Your task to perform on an android device: toggle pop-ups in chrome Image 0: 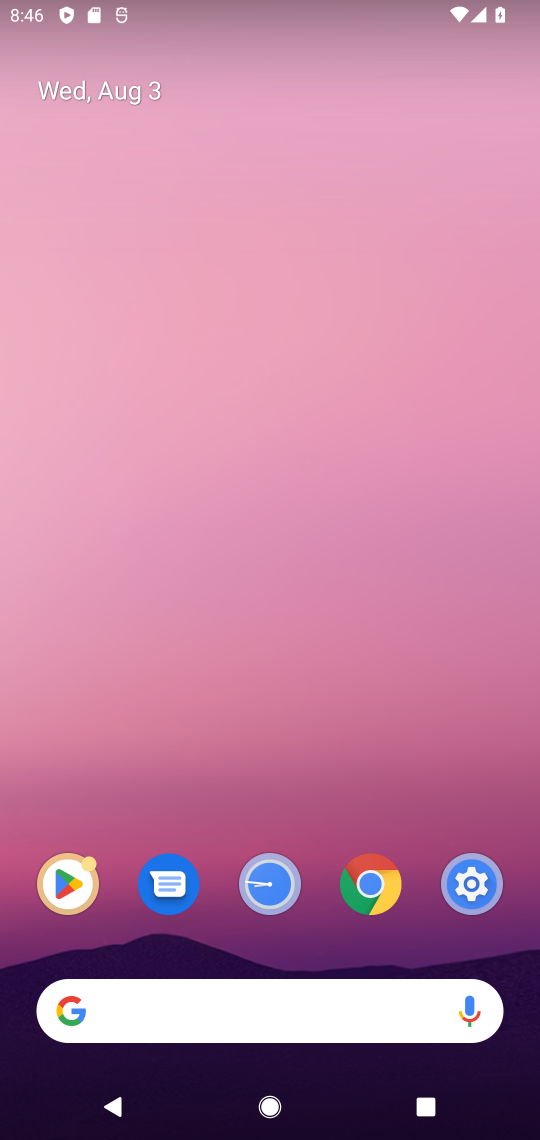
Step 0: click (312, 263)
Your task to perform on an android device: toggle pop-ups in chrome Image 1: 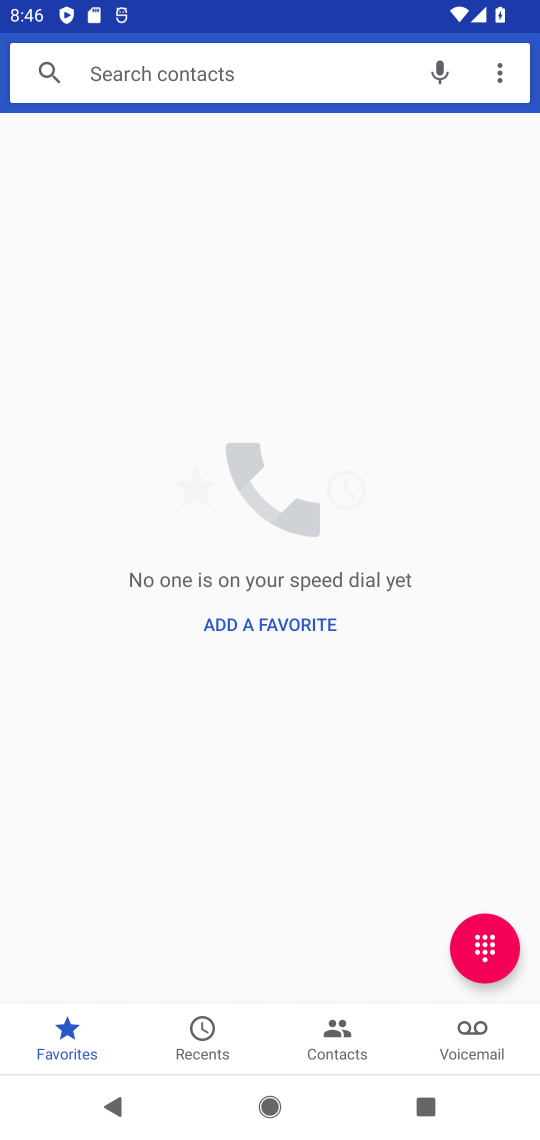
Step 1: drag from (218, 826) to (272, 489)
Your task to perform on an android device: toggle pop-ups in chrome Image 2: 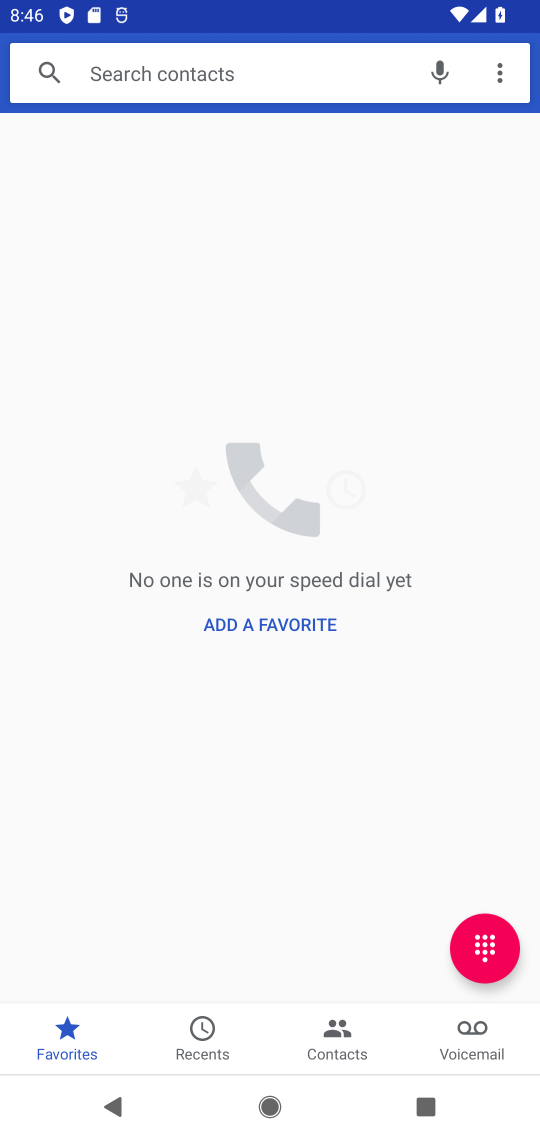
Step 2: press home button
Your task to perform on an android device: toggle pop-ups in chrome Image 3: 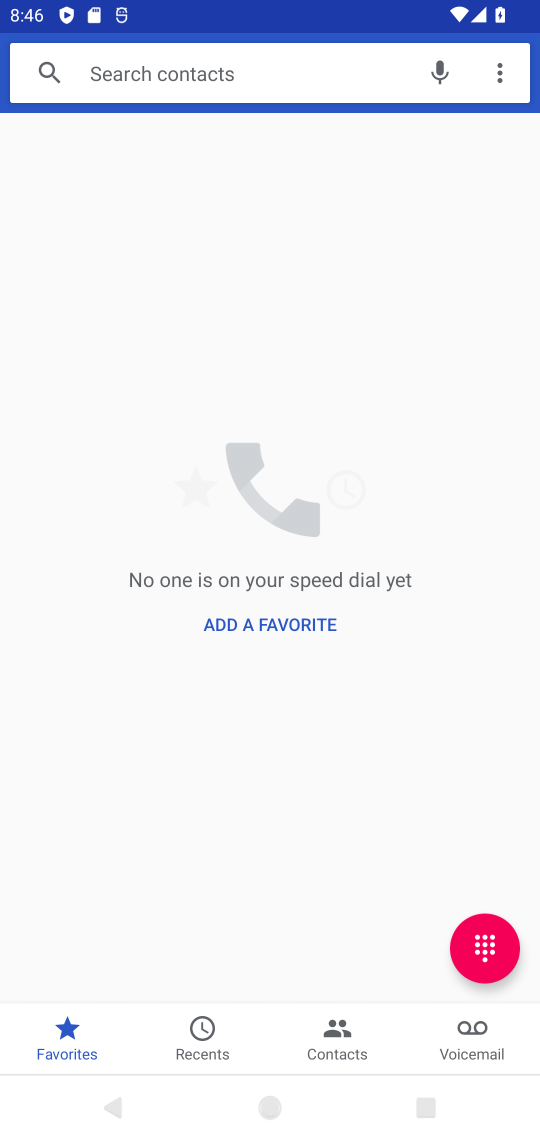
Step 3: drag from (115, 928) to (179, 519)
Your task to perform on an android device: toggle pop-ups in chrome Image 4: 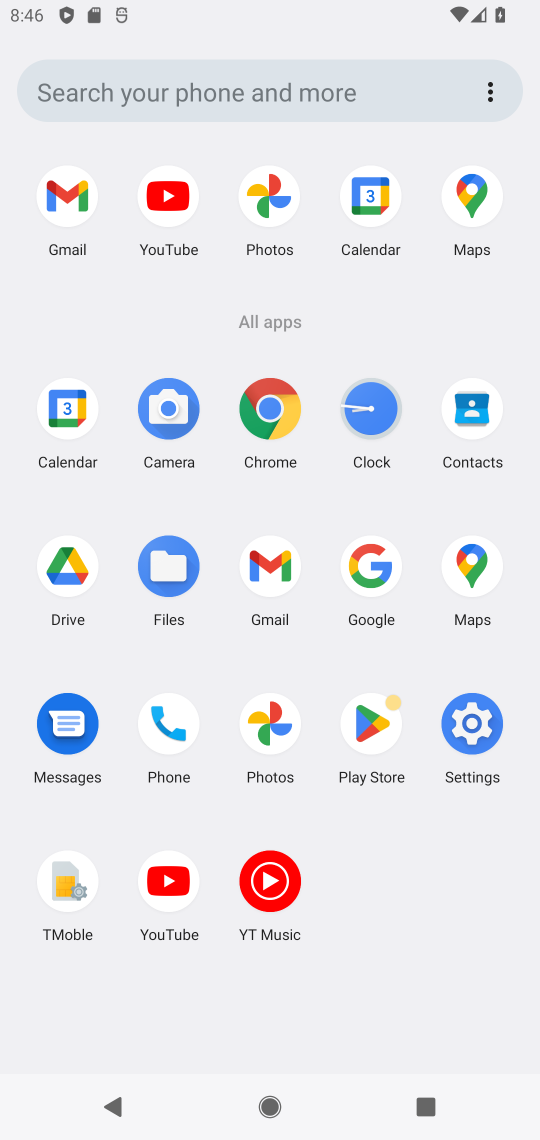
Step 4: click (268, 410)
Your task to perform on an android device: toggle pop-ups in chrome Image 5: 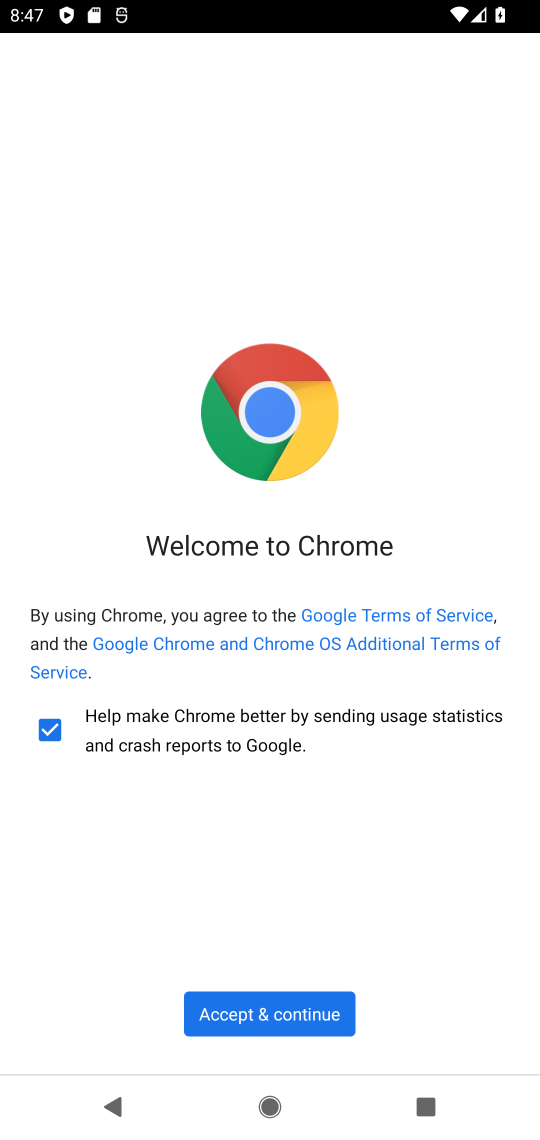
Step 5: drag from (343, 852) to (354, 278)
Your task to perform on an android device: toggle pop-ups in chrome Image 6: 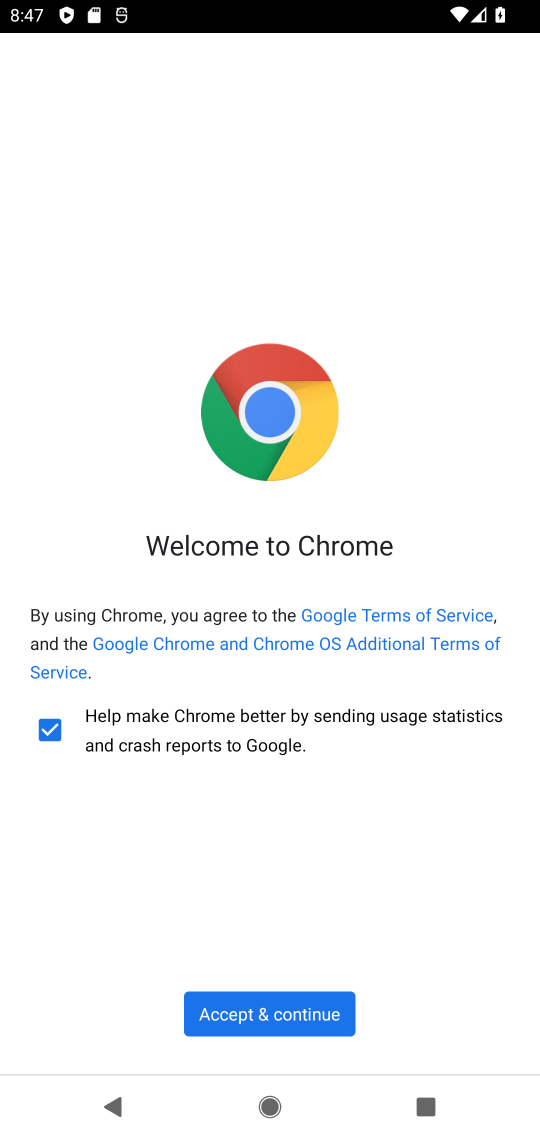
Step 6: drag from (184, 785) to (247, 328)
Your task to perform on an android device: toggle pop-ups in chrome Image 7: 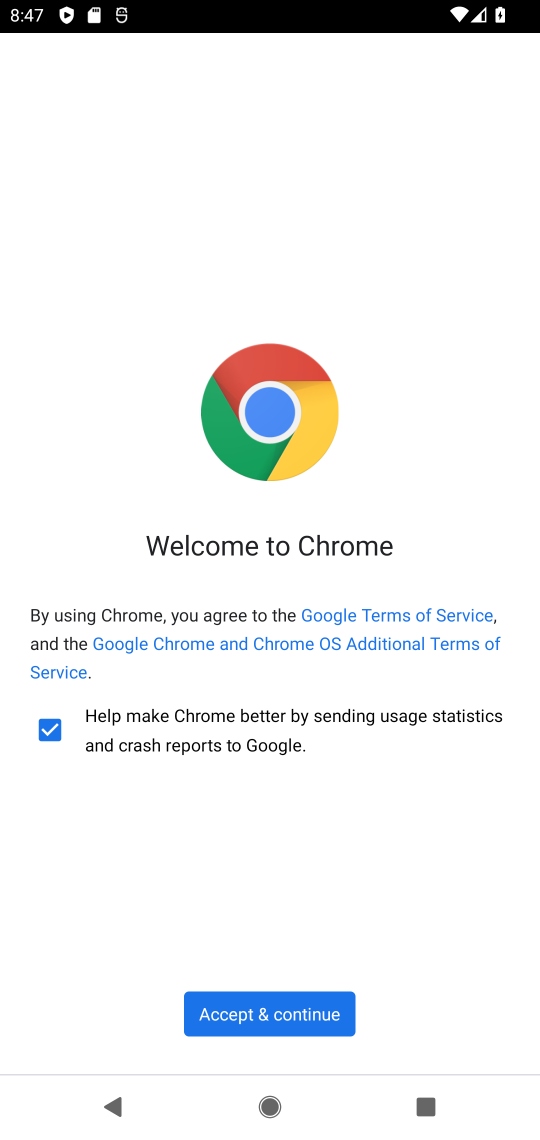
Step 7: drag from (269, 782) to (301, 418)
Your task to perform on an android device: toggle pop-ups in chrome Image 8: 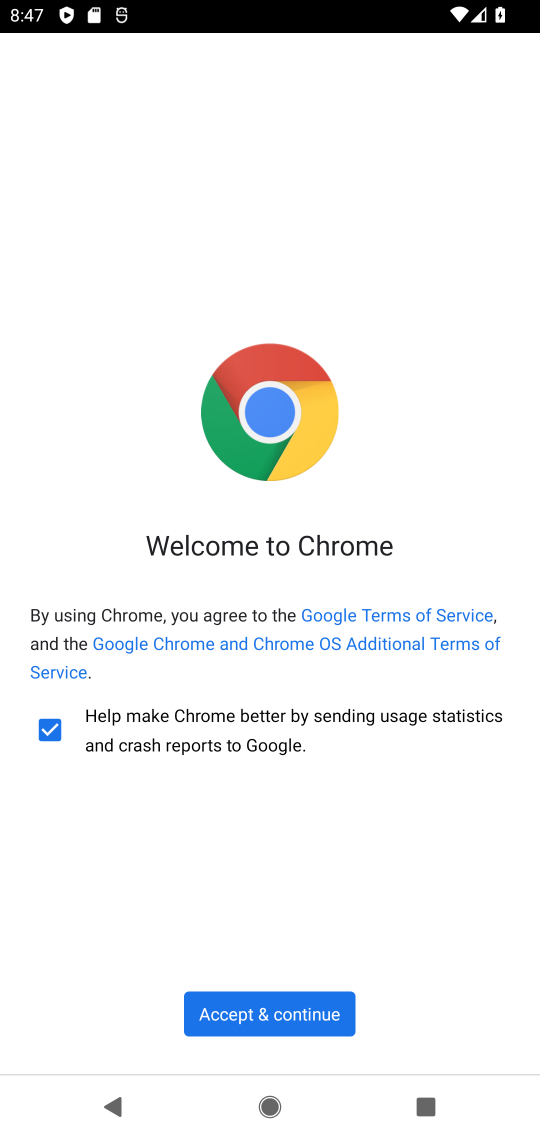
Step 8: click (282, 1003)
Your task to perform on an android device: toggle pop-ups in chrome Image 9: 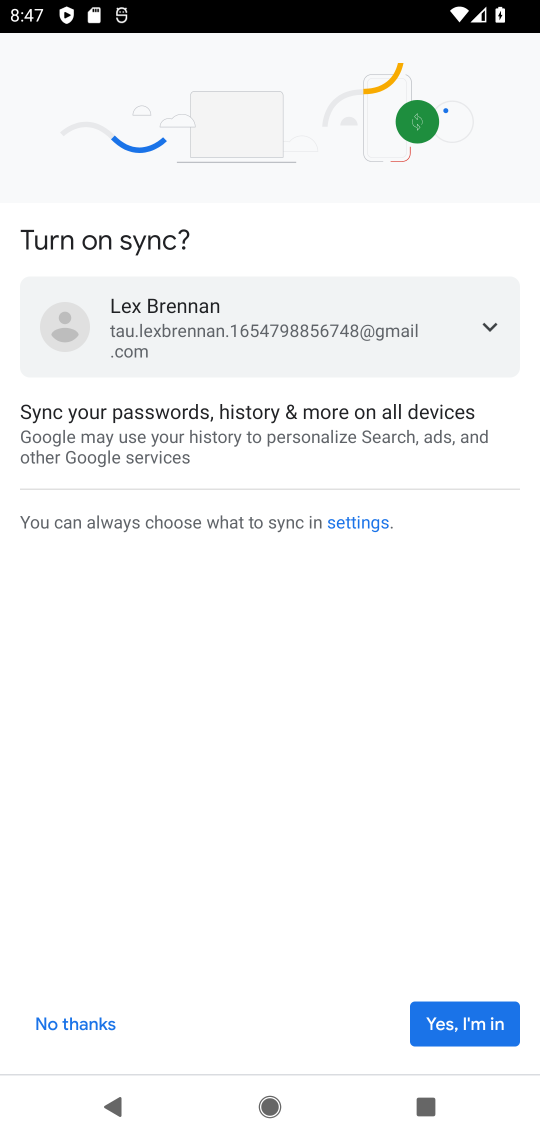
Step 9: click (458, 1022)
Your task to perform on an android device: toggle pop-ups in chrome Image 10: 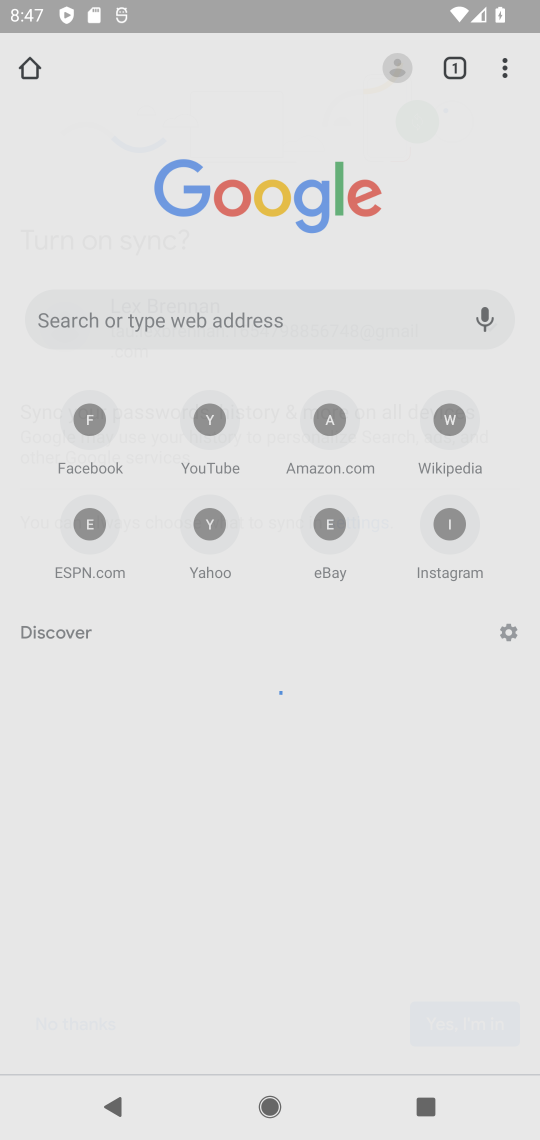
Step 10: click (495, 1019)
Your task to perform on an android device: toggle pop-ups in chrome Image 11: 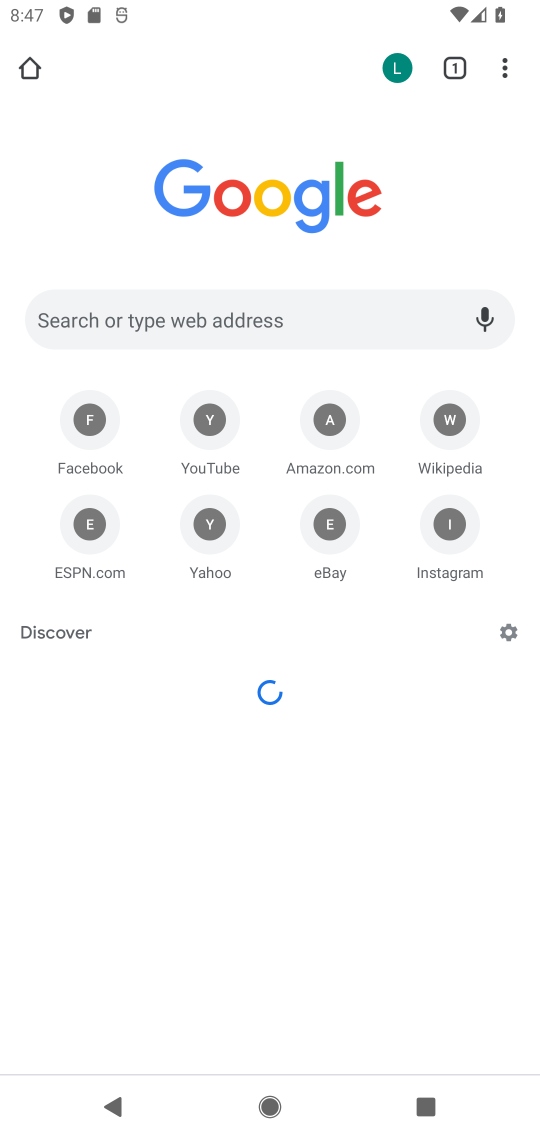
Step 11: drag from (411, 941) to (314, 467)
Your task to perform on an android device: toggle pop-ups in chrome Image 12: 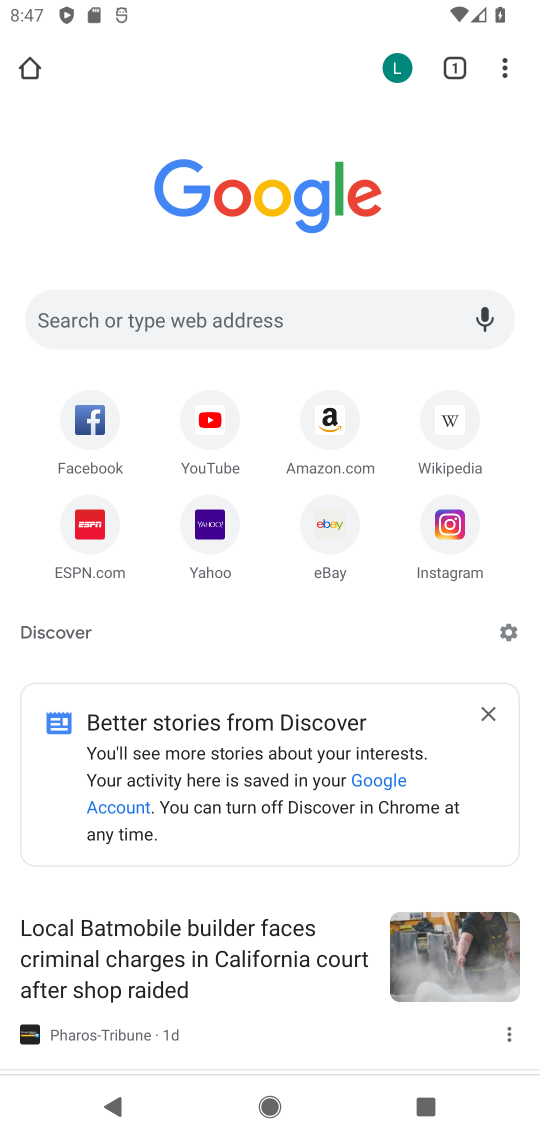
Step 12: drag from (501, 73) to (329, 587)
Your task to perform on an android device: toggle pop-ups in chrome Image 13: 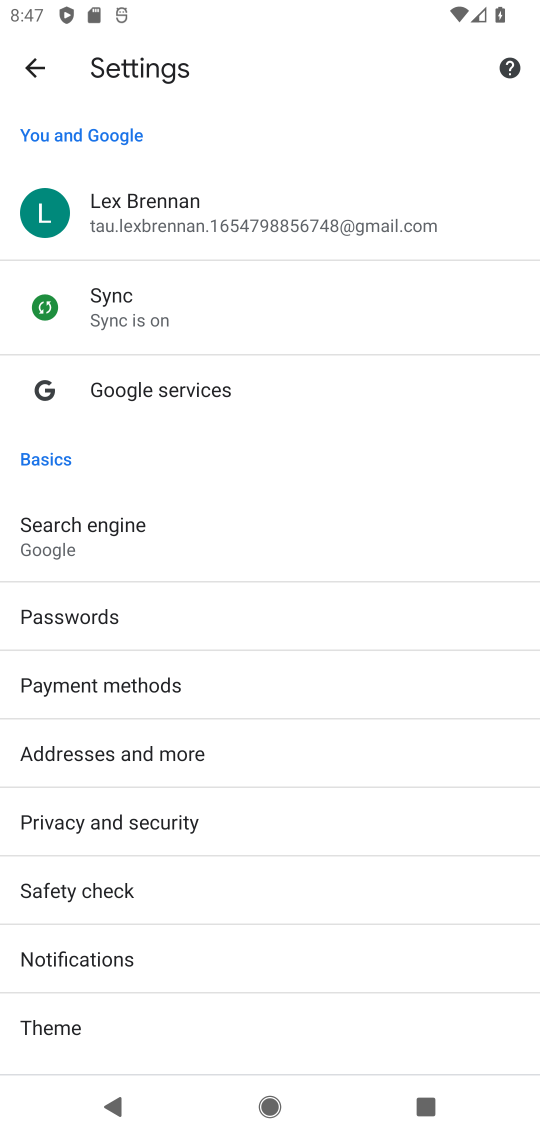
Step 13: drag from (290, 764) to (279, 326)
Your task to perform on an android device: toggle pop-ups in chrome Image 14: 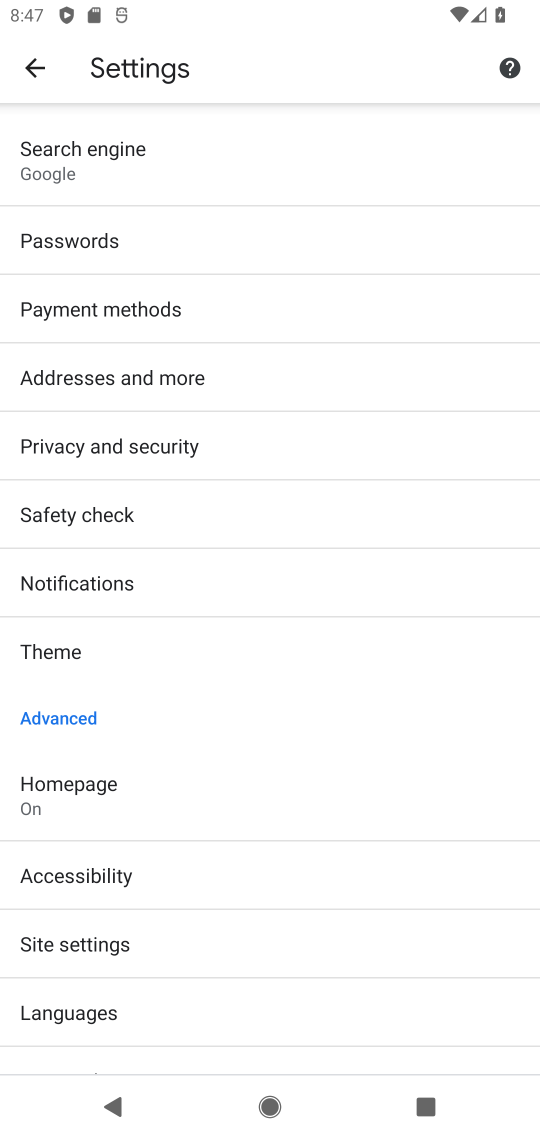
Step 14: click (82, 937)
Your task to perform on an android device: toggle pop-ups in chrome Image 15: 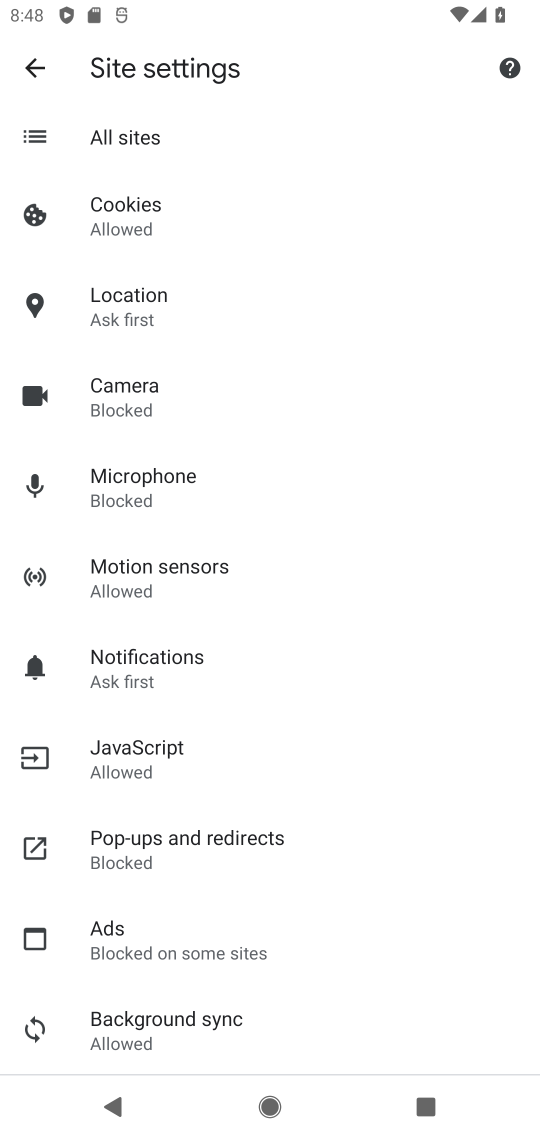
Step 15: drag from (311, 1025) to (263, 446)
Your task to perform on an android device: toggle pop-ups in chrome Image 16: 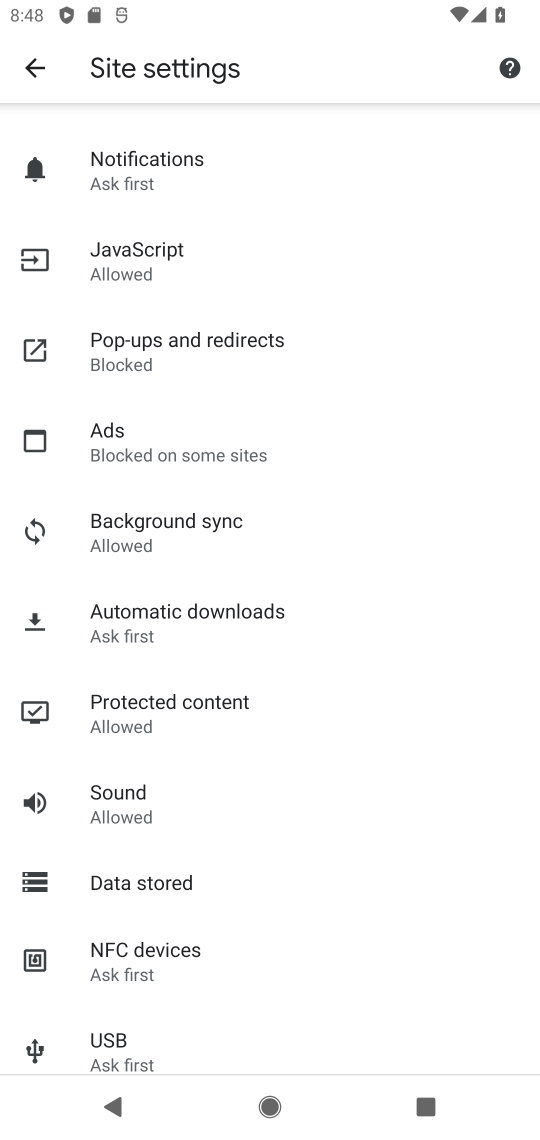
Step 16: drag from (276, 771) to (300, 330)
Your task to perform on an android device: toggle pop-ups in chrome Image 17: 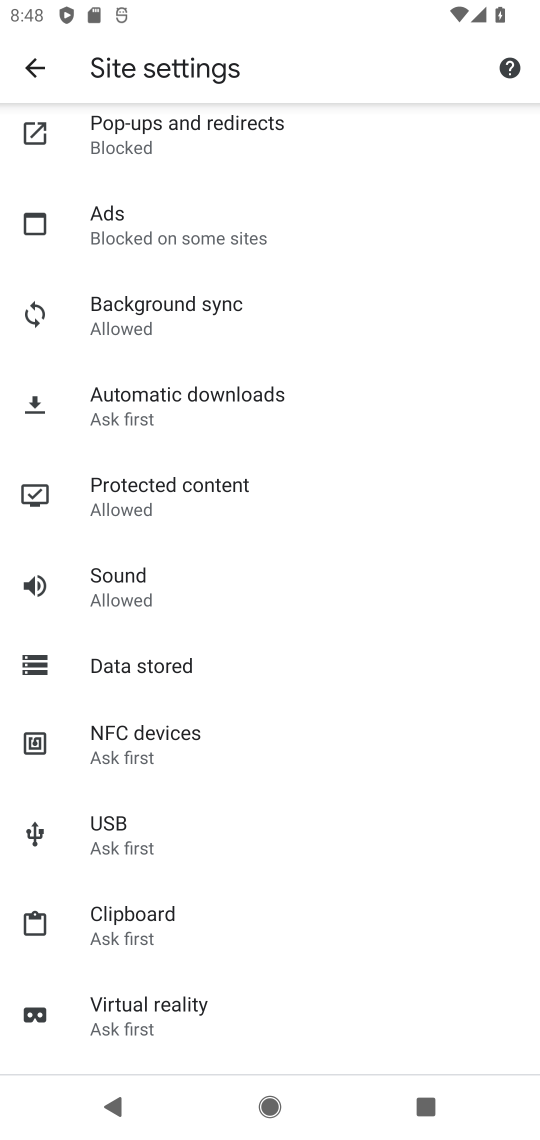
Step 17: click (164, 113)
Your task to perform on an android device: toggle pop-ups in chrome Image 18: 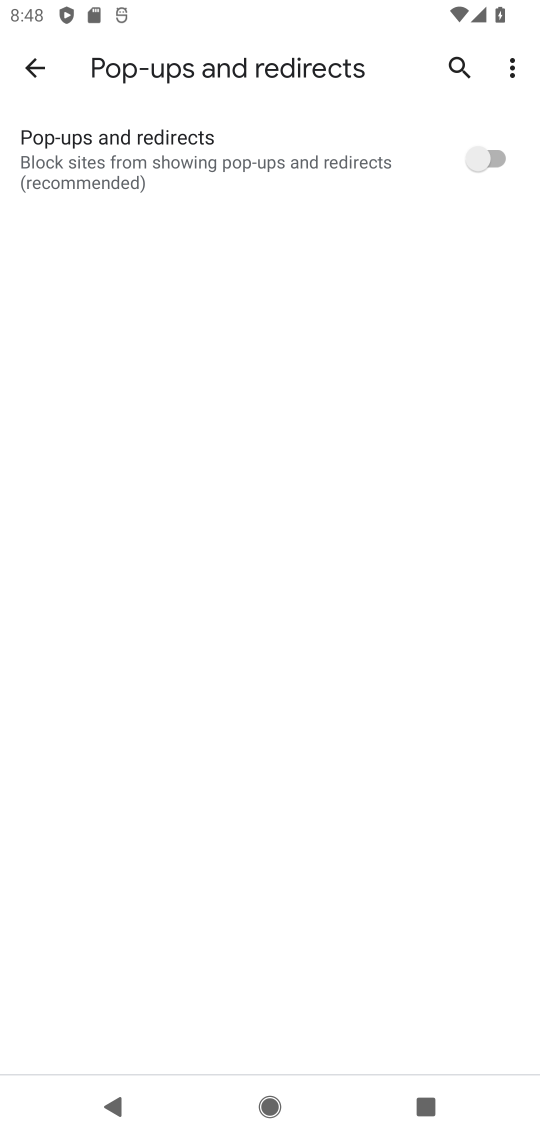
Step 18: click (479, 163)
Your task to perform on an android device: toggle pop-ups in chrome Image 19: 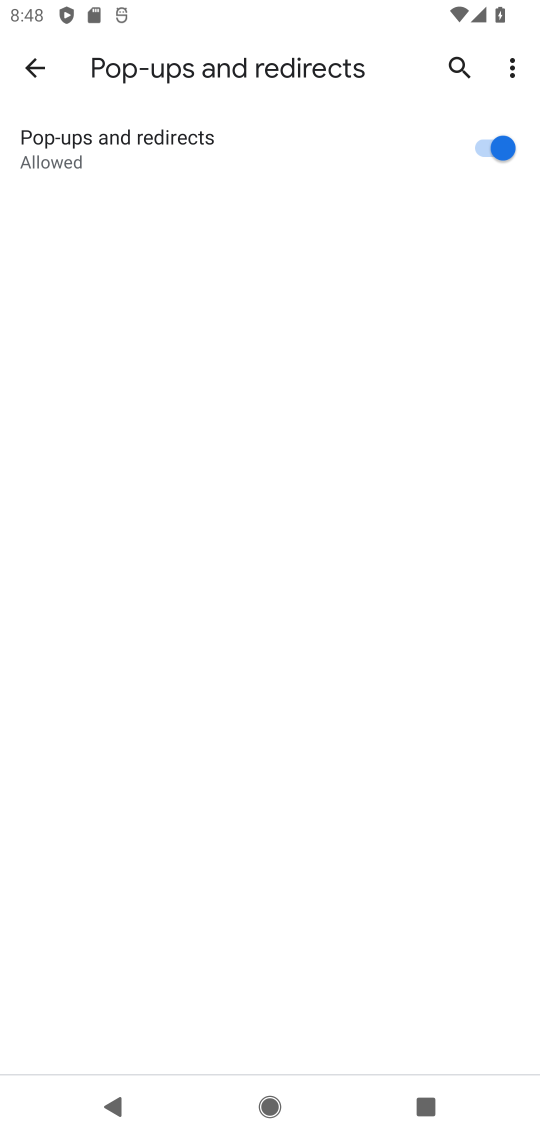
Step 19: task complete